Your task to perform on an android device: search for starred emails in the gmail app Image 0: 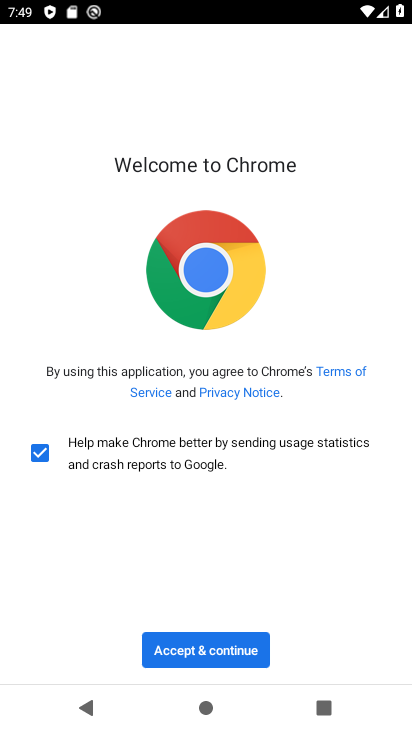
Step 0: press home button
Your task to perform on an android device: search for starred emails in the gmail app Image 1: 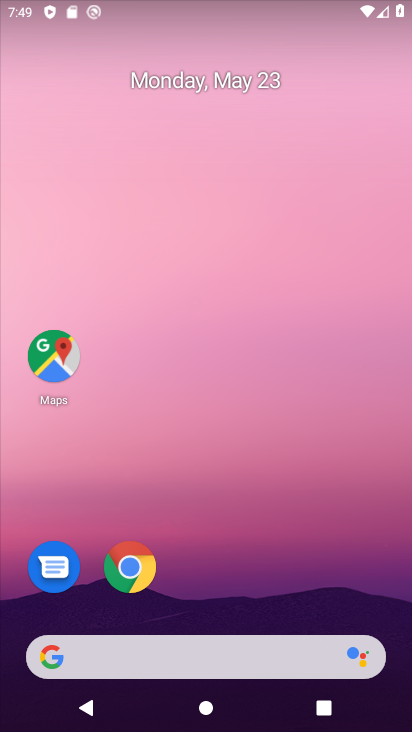
Step 1: drag from (213, 601) to (224, 173)
Your task to perform on an android device: search for starred emails in the gmail app Image 2: 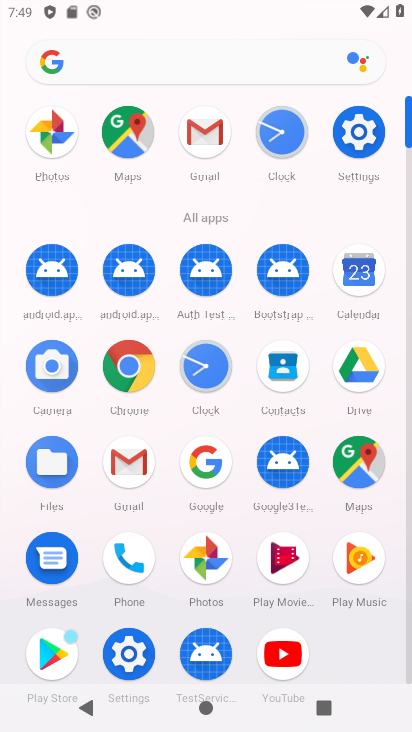
Step 2: click (124, 465)
Your task to perform on an android device: search for starred emails in the gmail app Image 3: 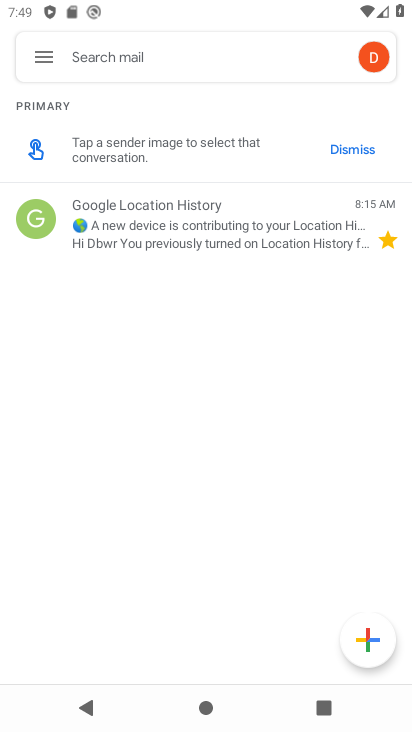
Step 3: click (49, 52)
Your task to perform on an android device: search for starred emails in the gmail app Image 4: 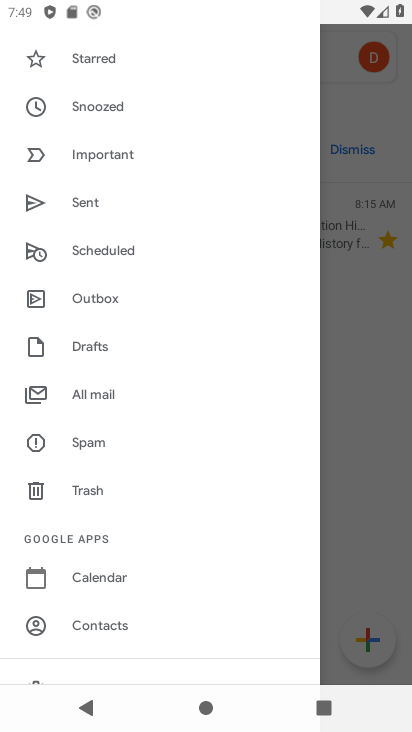
Step 4: click (99, 71)
Your task to perform on an android device: search for starred emails in the gmail app Image 5: 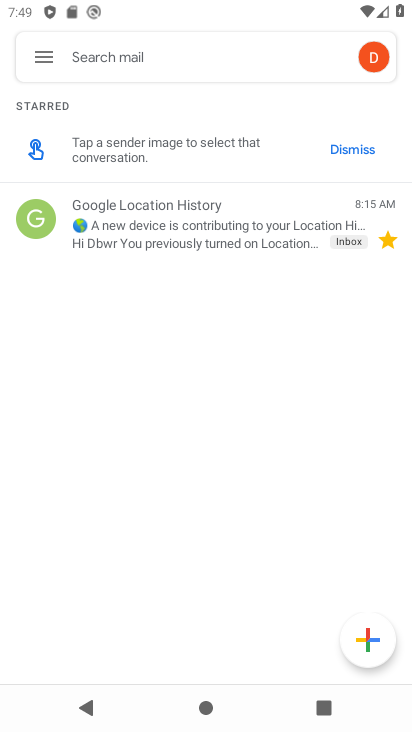
Step 5: task complete